Your task to perform on an android device: Do I have any events today? Image 0: 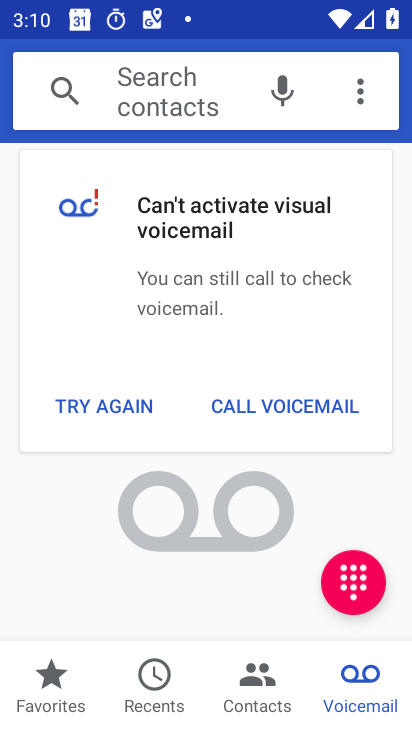
Step 0: press home button
Your task to perform on an android device: Do I have any events today? Image 1: 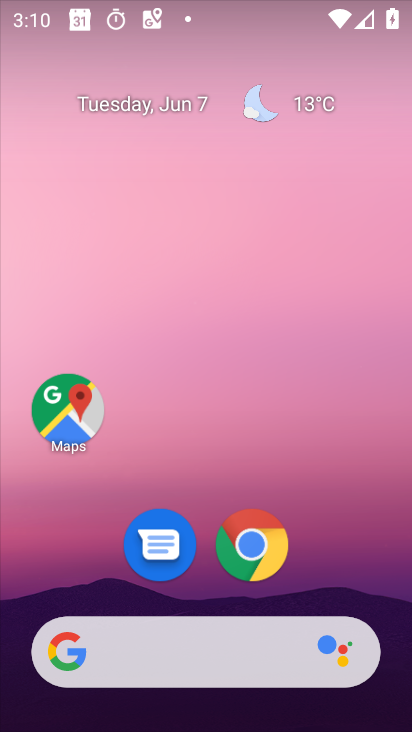
Step 1: click (145, 106)
Your task to perform on an android device: Do I have any events today? Image 2: 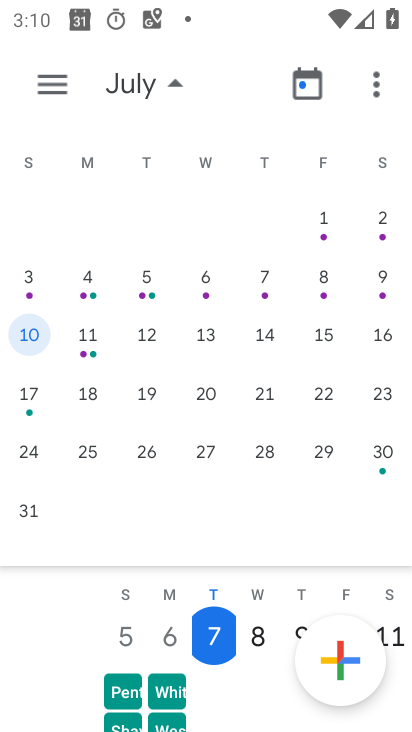
Step 2: click (34, 84)
Your task to perform on an android device: Do I have any events today? Image 3: 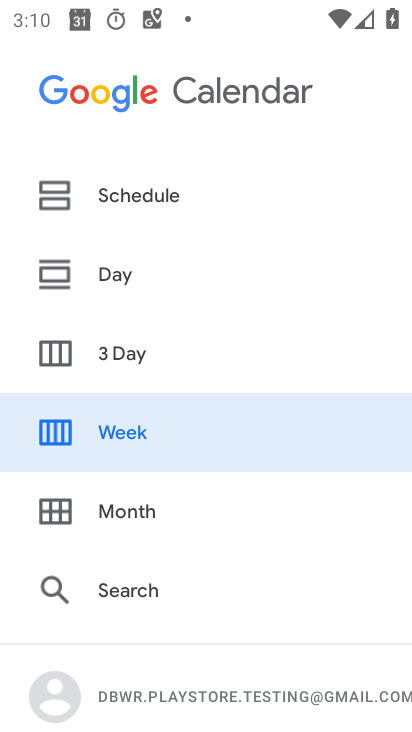
Step 3: click (128, 274)
Your task to perform on an android device: Do I have any events today? Image 4: 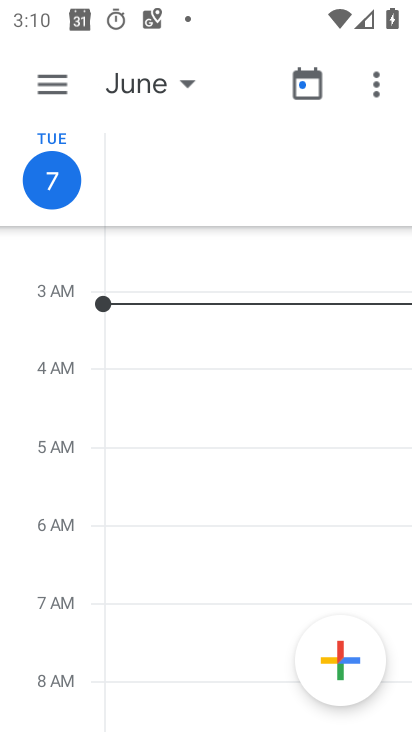
Step 4: click (151, 85)
Your task to perform on an android device: Do I have any events today? Image 5: 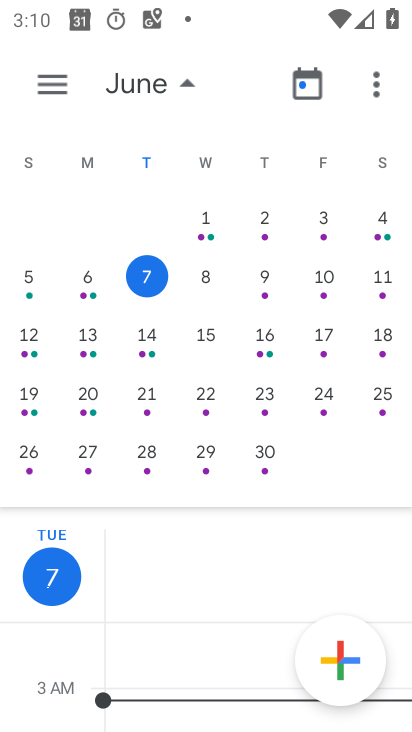
Step 5: click (61, 579)
Your task to perform on an android device: Do I have any events today? Image 6: 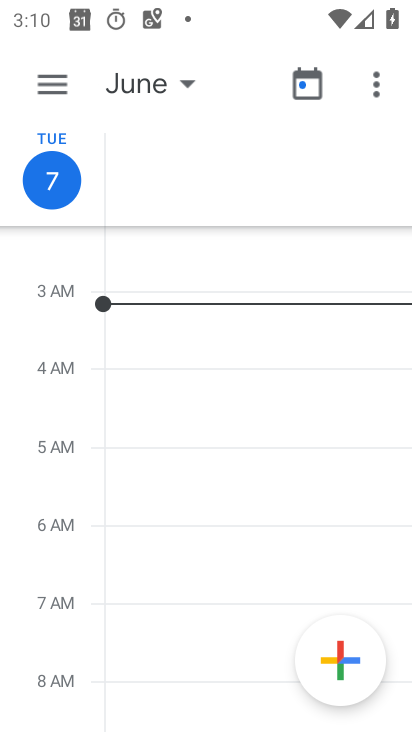
Step 6: task complete